Your task to perform on an android device: Open Yahoo.com Image 0: 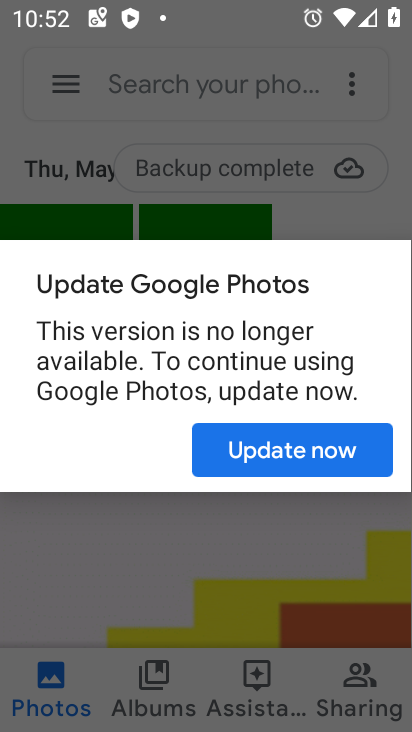
Step 0: press home button
Your task to perform on an android device: Open Yahoo.com Image 1: 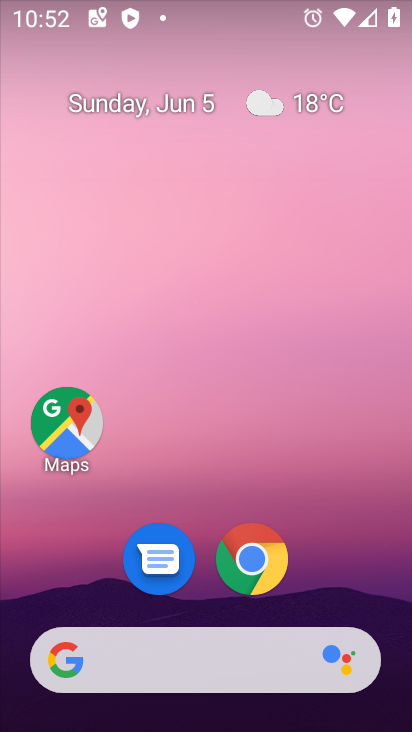
Step 1: click (244, 560)
Your task to perform on an android device: Open Yahoo.com Image 2: 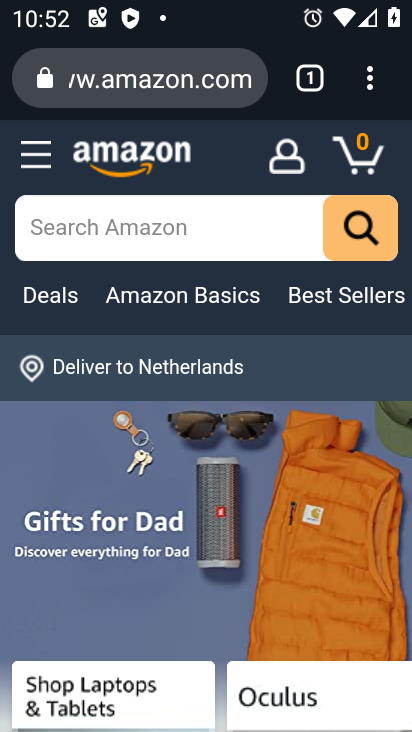
Step 2: click (242, 84)
Your task to perform on an android device: Open Yahoo.com Image 3: 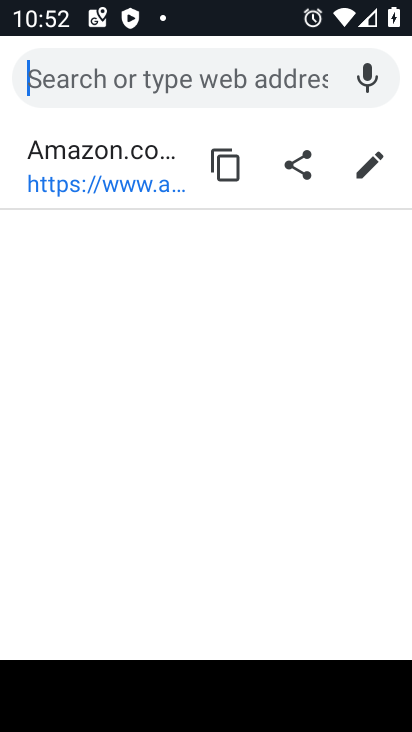
Step 3: type "Yahoo.com"
Your task to perform on an android device: Open Yahoo.com Image 4: 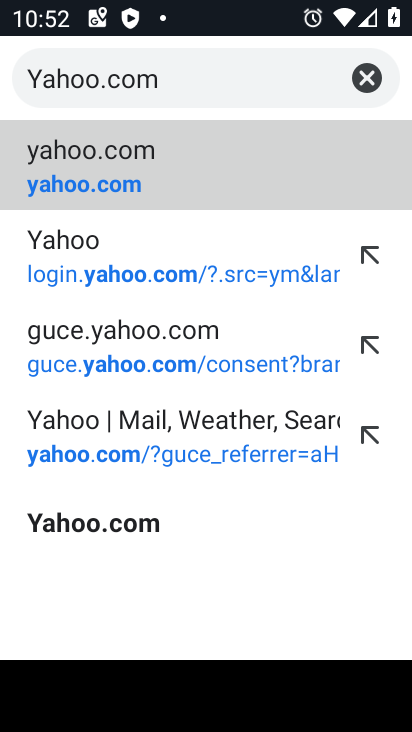
Step 4: click (92, 525)
Your task to perform on an android device: Open Yahoo.com Image 5: 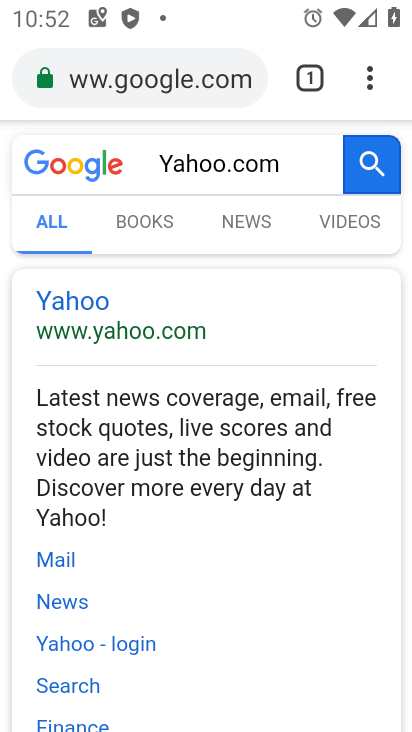
Step 5: task complete